Your task to perform on an android device: Go to ESPN.com Image 0: 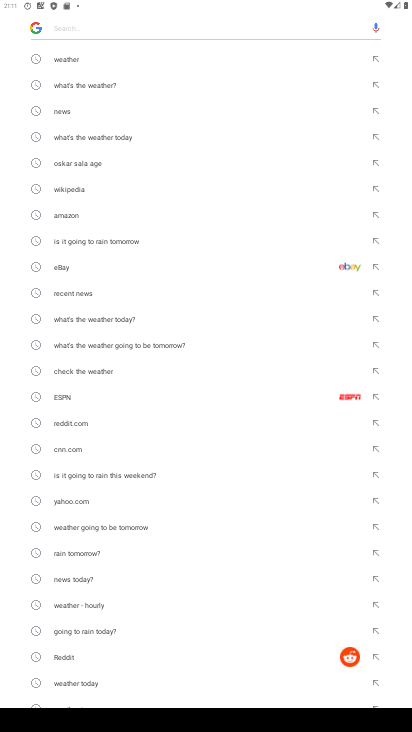
Step 0: press home button
Your task to perform on an android device: Go to ESPN.com Image 1: 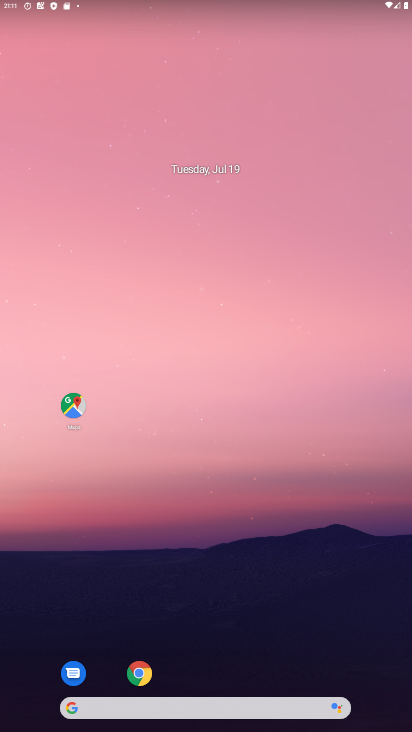
Step 1: click (139, 674)
Your task to perform on an android device: Go to ESPN.com Image 2: 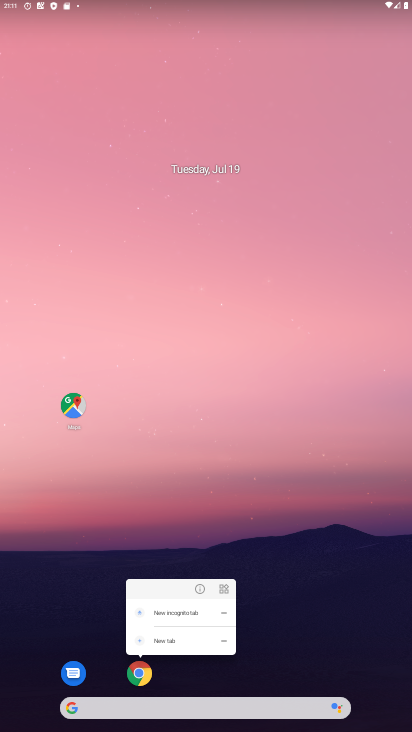
Step 2: click (141, 673)
Your task to perform on an android device: Go to ESPN.com Image 3: 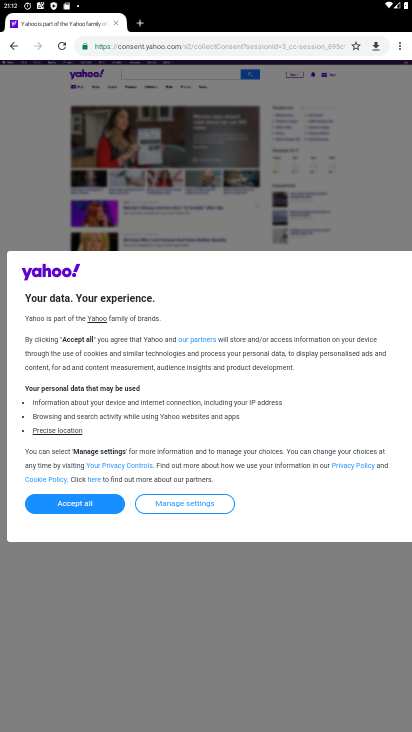
Step 3: click (251, 47)
Your task to perform on an android device: Go to ESPN.com Image 4: 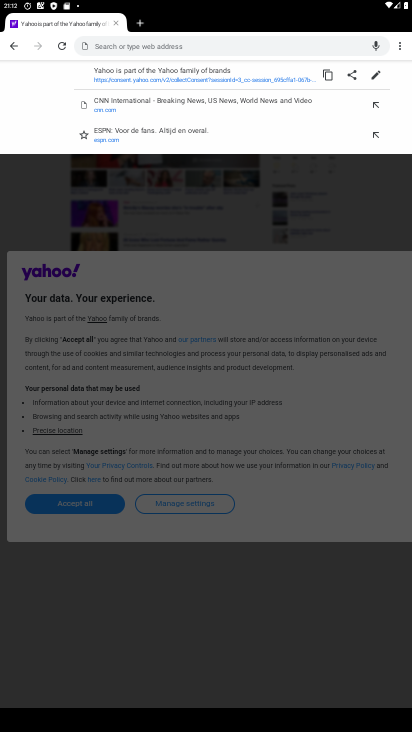
Step 4: type "espn.com"
Your task to perform on an android device: Go to ESPN.com Image 5: 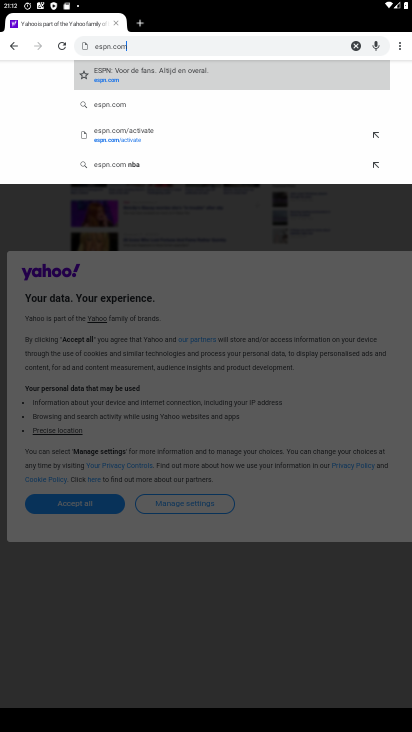
Step 5: click (195, 74)
Your task to perform on an android device: Go to ESPN.com Image 6: 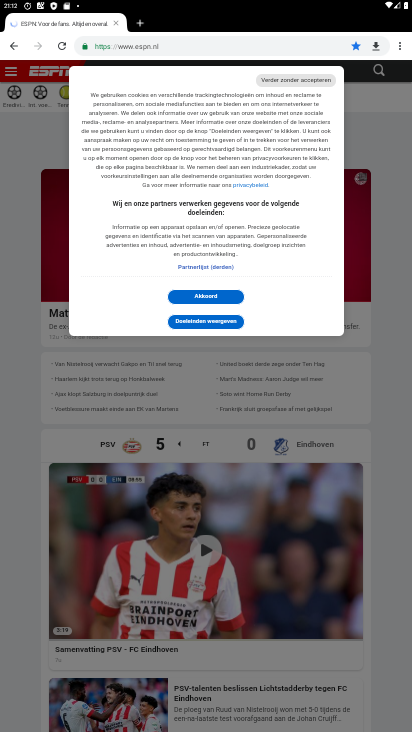
Step 6: task complete